Your task to perform on an android device: Is it going to rain today? Image 0: 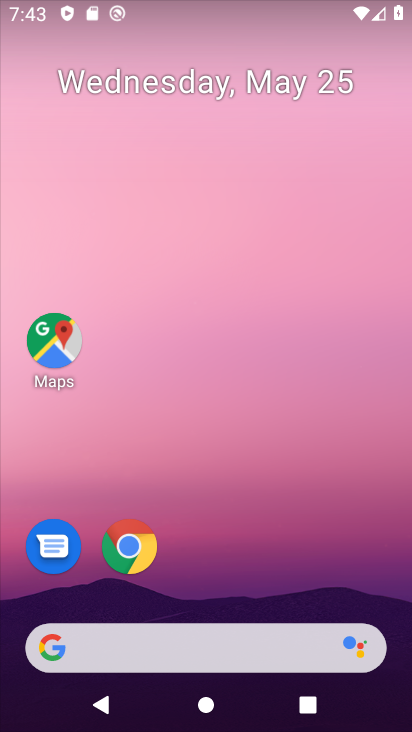
Step 0: click (195, 638)
Your task to perform on an android device: Is it going to rain today? Image 1: 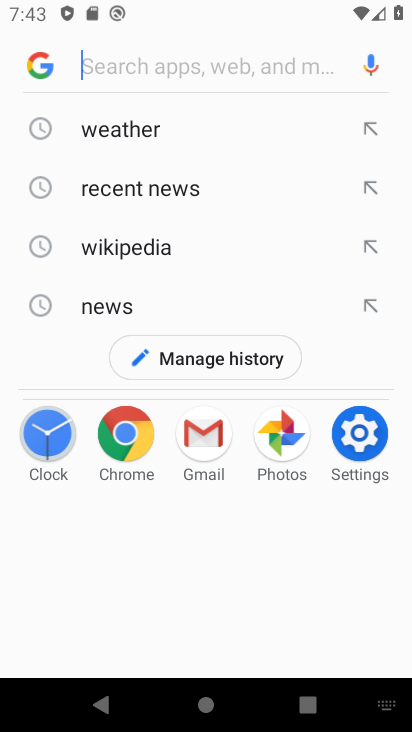
Step 1: click (109, 129)
Your task to perform on an android device: Is it going to rain today? Image 2: 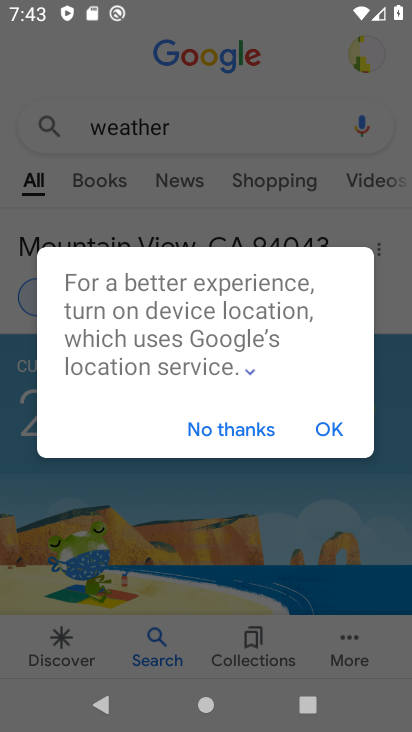
Step 2: click (237, 443)
Your task to perform on an android device: Is it going to rain today? Image 3: 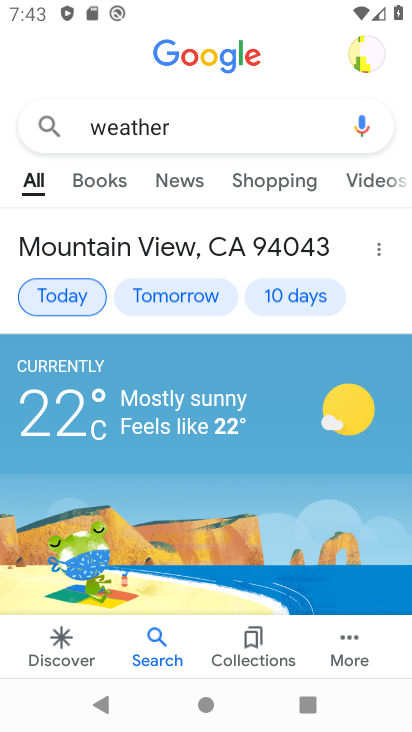
Step 3: task complete